Your task to perform on an android device: Open Maps and search for coffee Image 0: 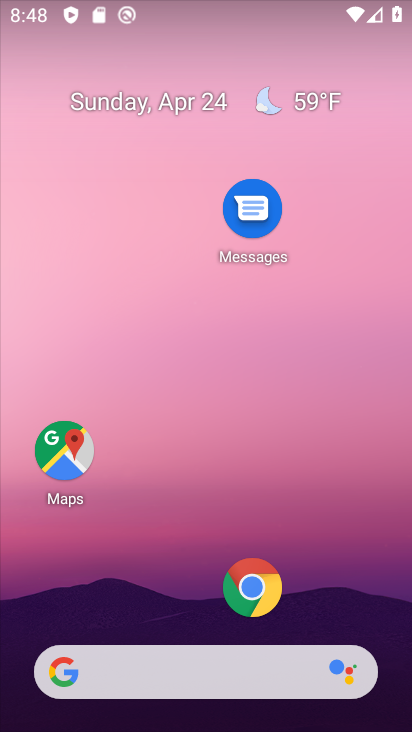
Step 0: click (73, 450)
Your task to perform on an android device: Open Maps and search for coffee Image 1: 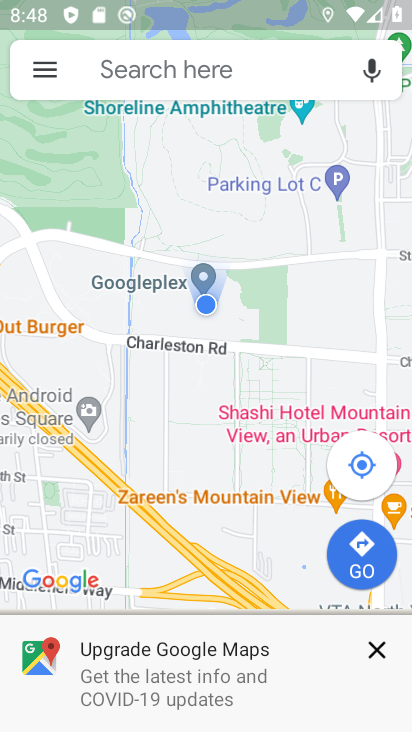
Step 1: click (205, 63)
Your task to perform on an android device: Open Maps and search for coffee Image 2: 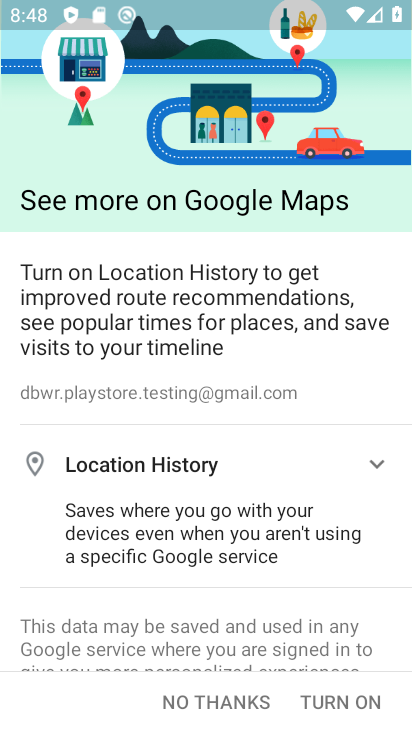
Step 2: click (210, 695)
Your task to perform on an android device: Open Maps and search for coffee Image 3: 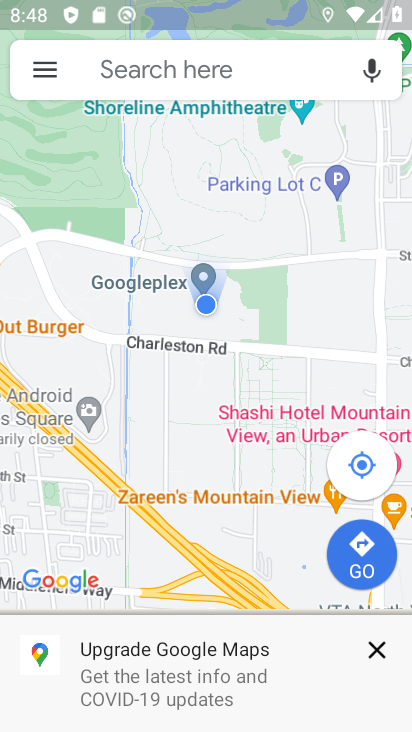
Step 3: click (196, 58)
Your task to perform on an android device: Open Maps and search for coffee Image 4: 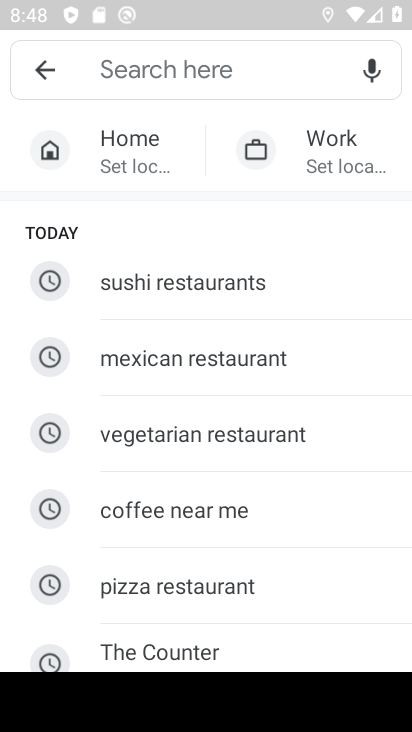
Step 4: type "coffee"
Your task to perform on an android device: Open Maps and search for coffee Image 5: 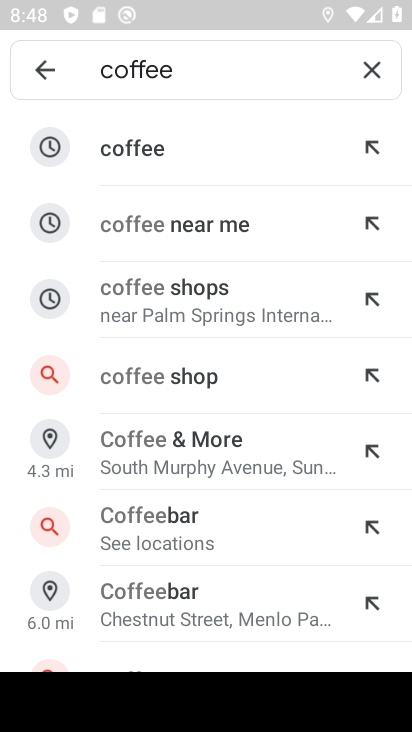
Step 5: click (174, 131)
Your task to perform on an android device: Open Maps and search for coffee Image 6: 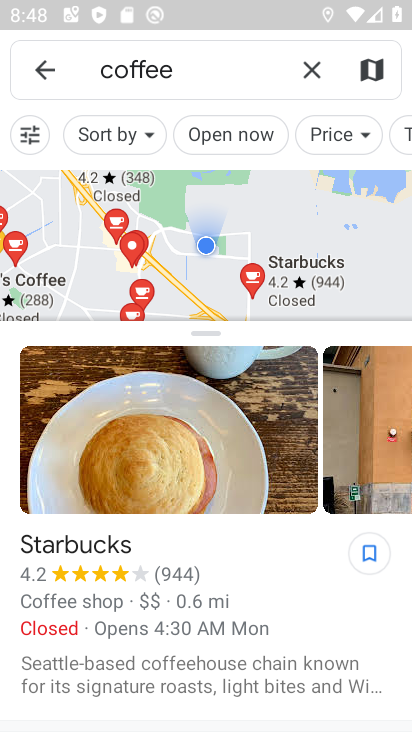
Step 6: task complete